Your task to perform on an android device: turn off priority inbox in the gmail app Image 0: 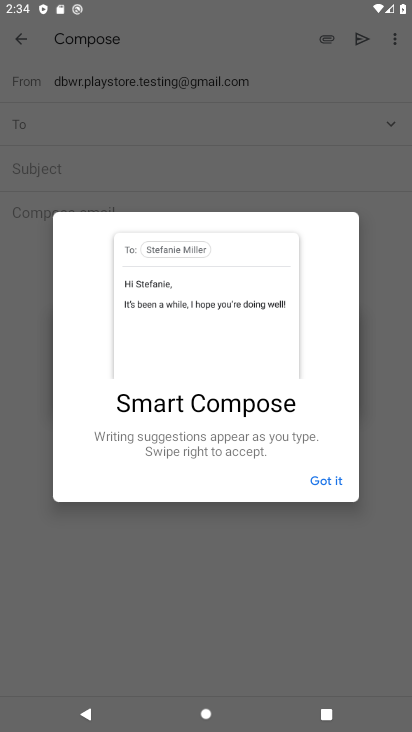
Step 0: press home button
Your task to perform on an android device: turn off priority inbox in the gmail app Image 1: 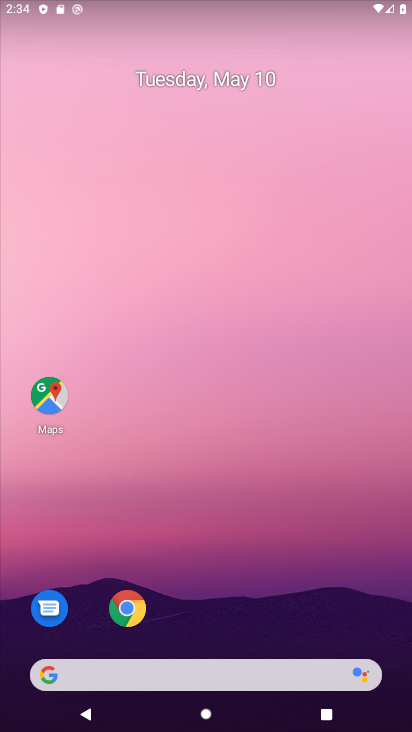
Step 1: drag from (385, 630) to (283, 65)
Your task to perform on an android device: turn off priority inbox in the gmail app Image 2: 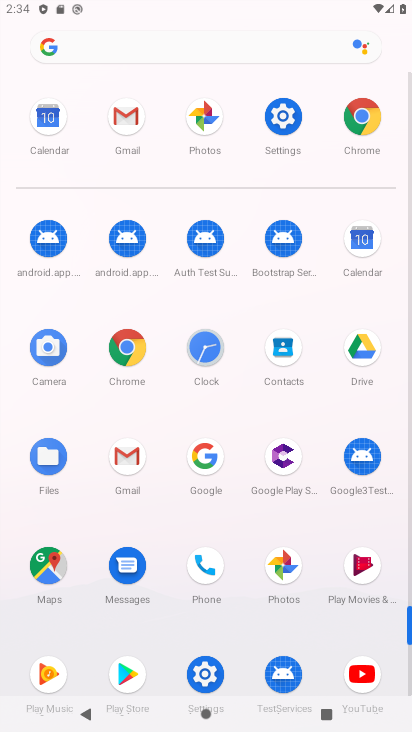
Step 2: click (410, 673)
Your task to perform on an android device: turn off priority inbox in the gmail app Image 3: 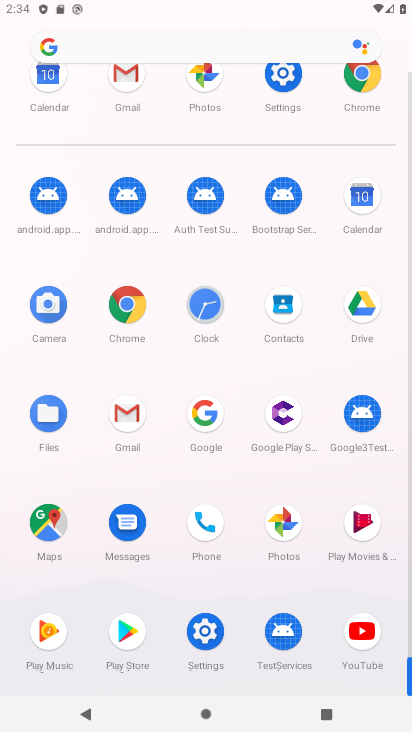
Step 3: click (122, 412)
Your task to perform on an android device: turn off priority inbox in the gmail app Image 4: 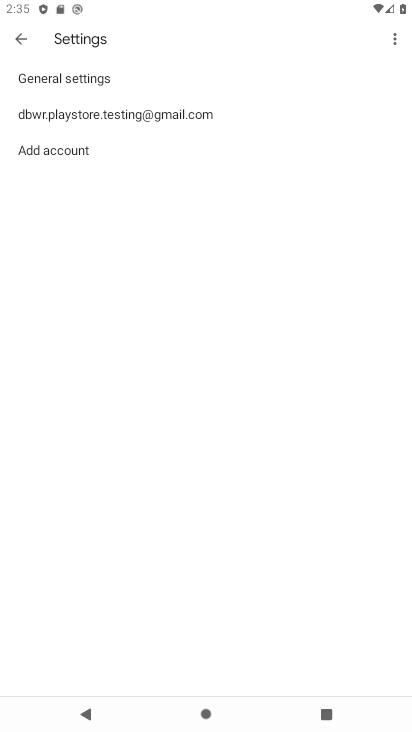
Step 4: click (87, 116)
Your task to perform on an android device: turn off priority inbox in the gmail app Image 5: 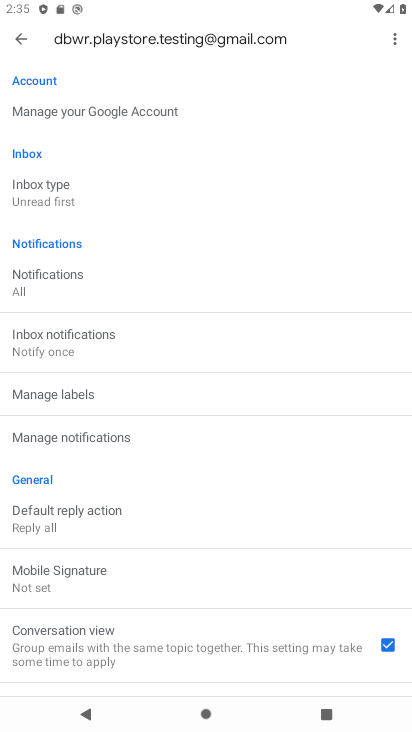
Step 5: click (41, 185)
Your task to perform on an android device: turn off priority inbox in the gmail app Image 6: 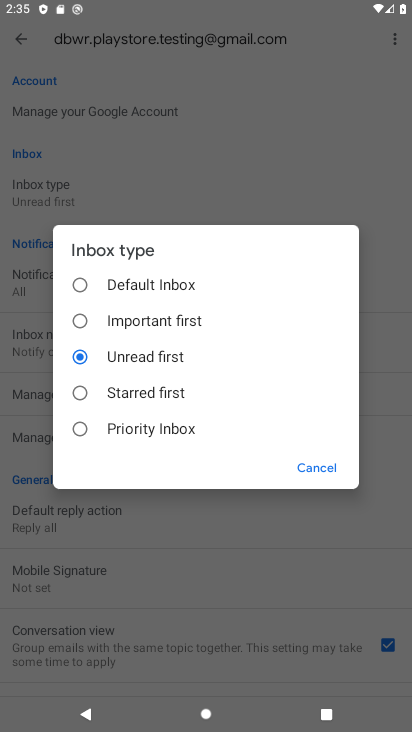
Step 6: task complete